Your task to perform on an android device: Open CNN.com Image 0: 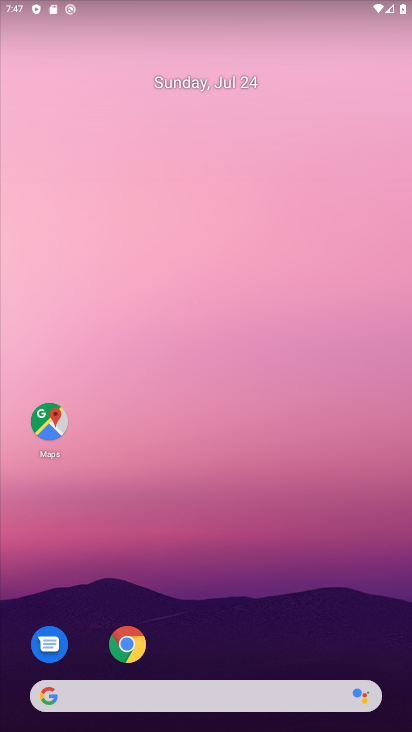
Step 0: click (141, 648)
Your task to perform on an android device: Open CNN.com Image 1: 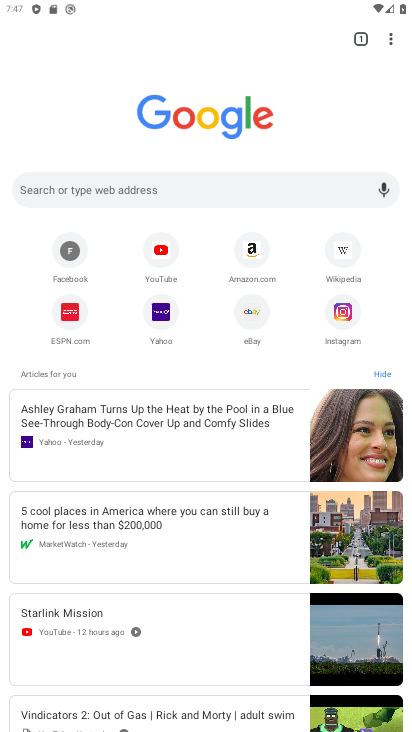
Step 1: click (239, 193)
Your task to perform on an android device: Open CNN.com Image 2: 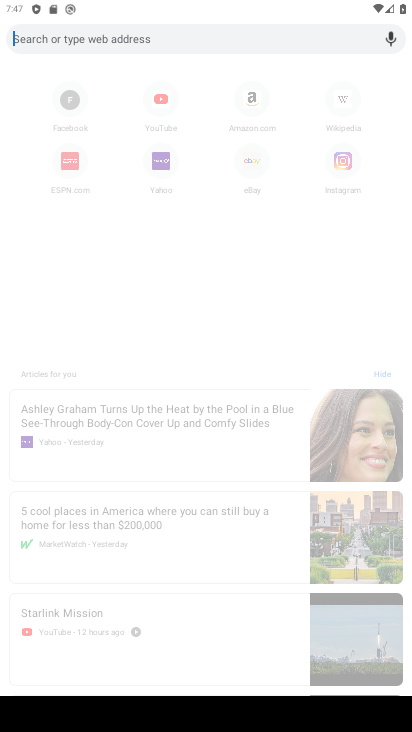
Step 2: type "CNN.com"
Your task to perform on an android device: Open CNN.com Image 3: 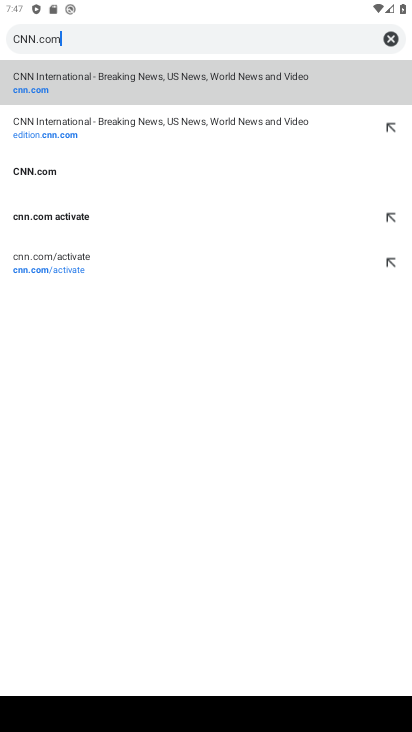
Step 3: click (93, 83)
Your task to perform on an android device: Open CNN.com Image 4: 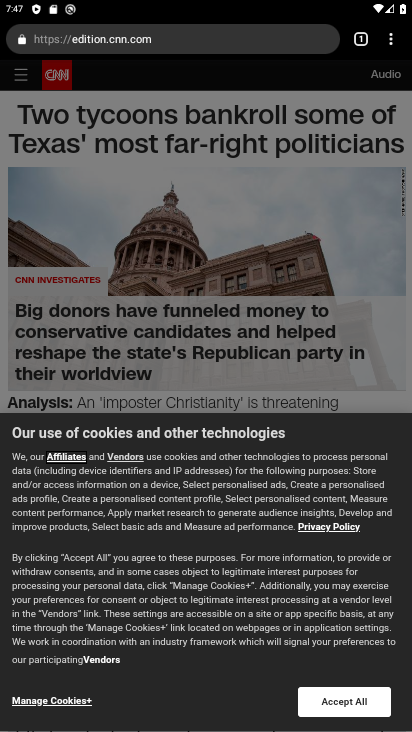
Step 4: task complete